Your task to perform on an android device: create a new album in the google photos Image 0: 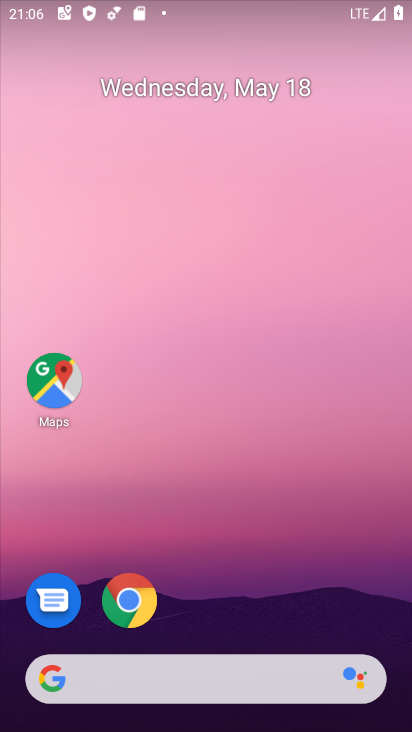
Step 0: drag from (253, 641) to (283, 99)
Your task to perform on an android device: create a new album in the google photos Image 1: 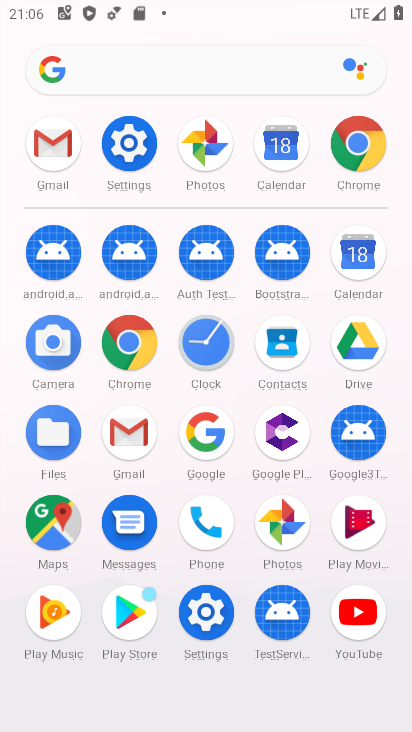
Step 1: click (283, 527)
Your task to perform on an android device: create a new album in the google photos Image 2: 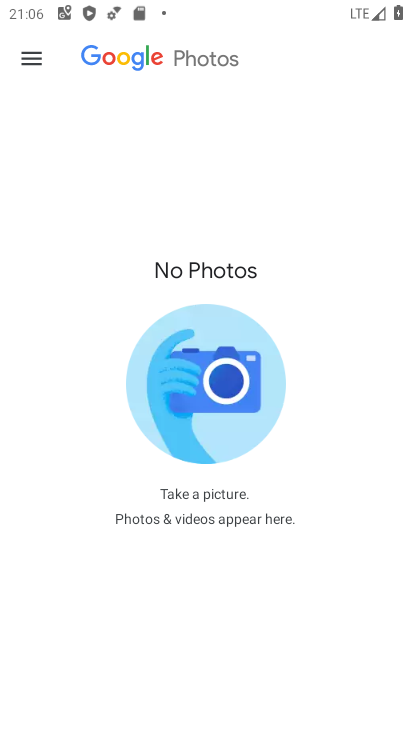
Step 2: task complete